Your task to perform on an android device: turn off wifi Image 0: 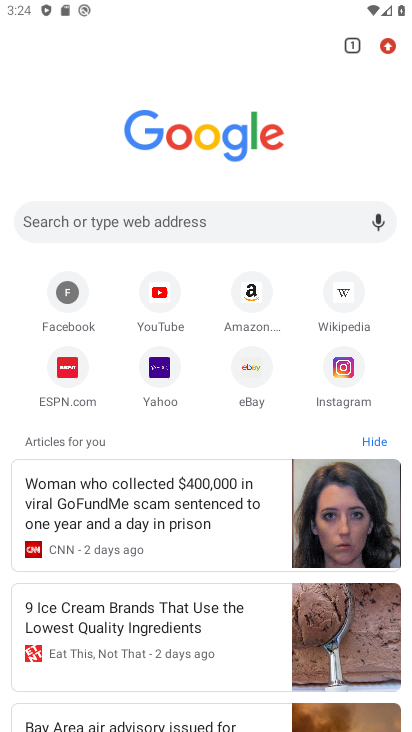
Step 0: press home button
Your task to perform on an android device: turn off wifi Image 1: 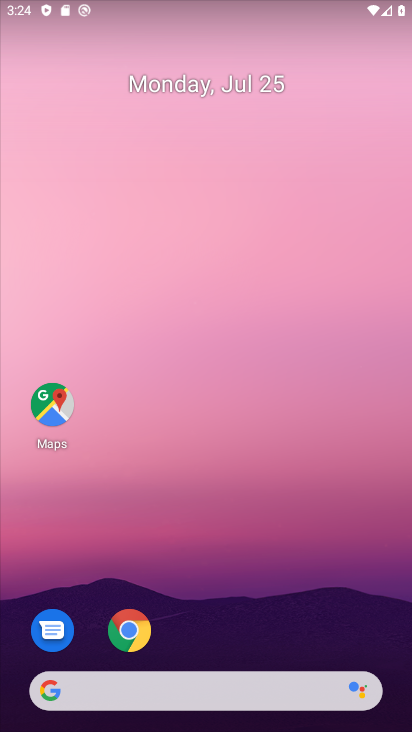
Step 1: drag from (221, 644) to (203, 21)
Your task to perform on an android device: turn off wifi Image 2: 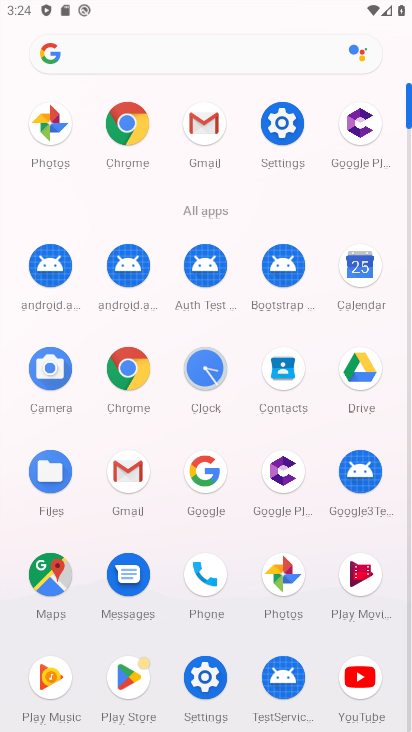
Step 2: click (283, 142)
Your task to perform on an android device: turn off wifi Image 3: 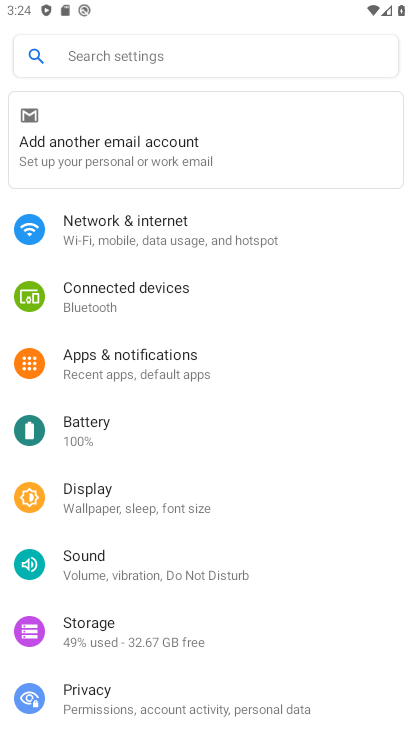
Step 3: click (146, 242)
Your task to perform on an android device: turn off wifi Image 4: 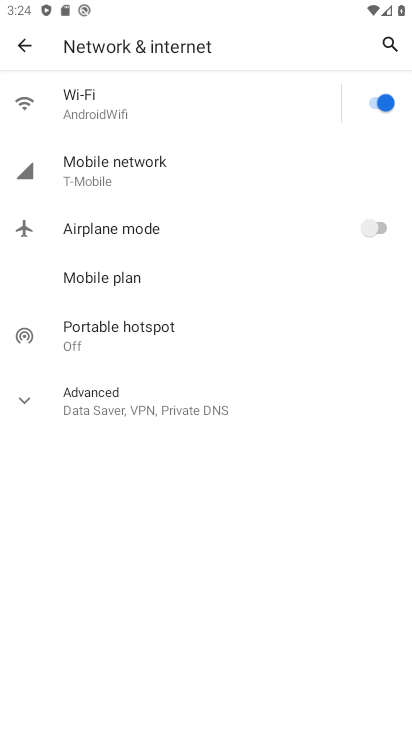
Step 4: click (353, 102)
Your task to perform on an android device: turn off wifi Image 5: 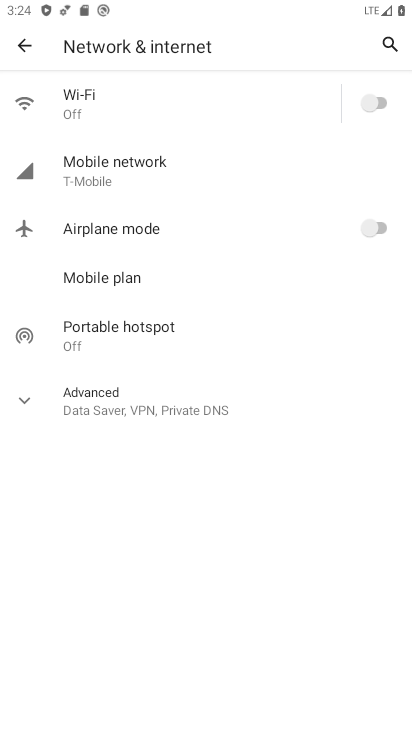
Step 5: task complete